Your task to perform on an android device: Open sound settings Image 0: 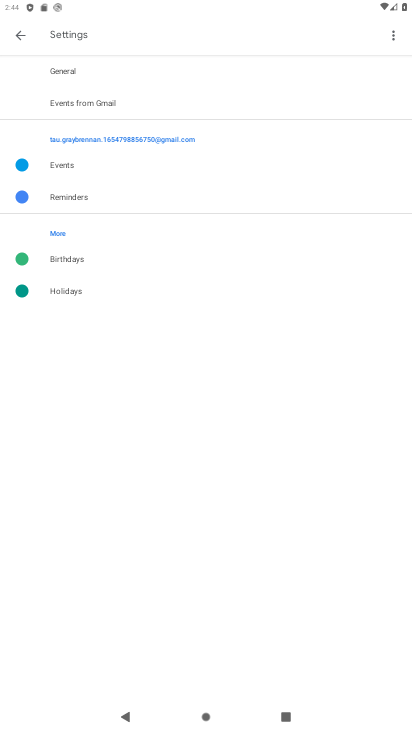
Step 0: press home button
Your task to perform on an android device: Open sound settings Image 1: 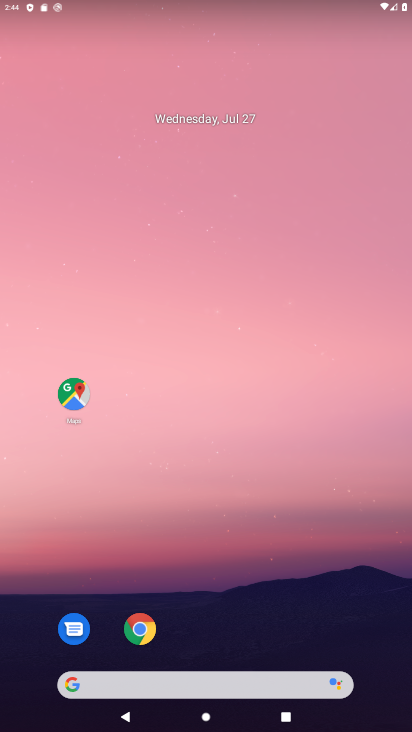
Step 1: drag from (236, 621) to (228, 207)
Your task to perform on an android device: Open sound settings Image 2: 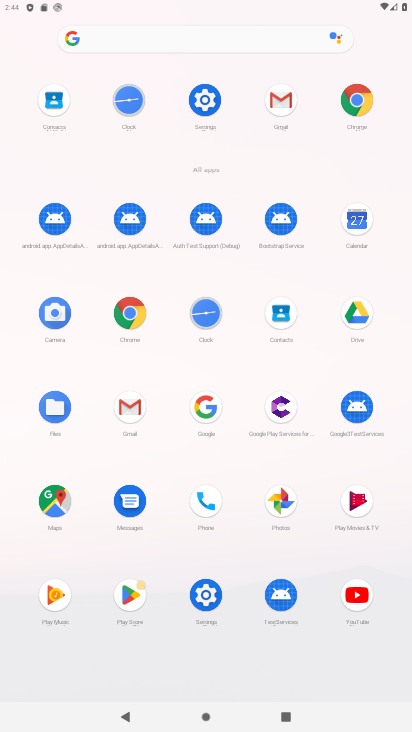
Step 2: click (211, 110)
Your task to perform on an android device: Open sound settings Image 3: 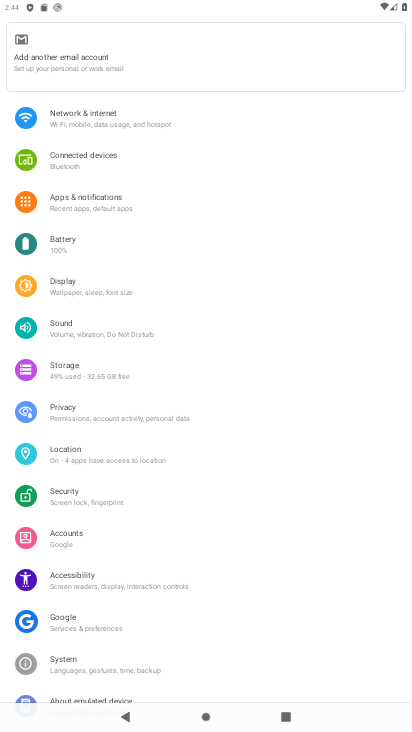
Step 3: click (69, 333)
Your task to perform on an android device: Open sound settings Image 4: 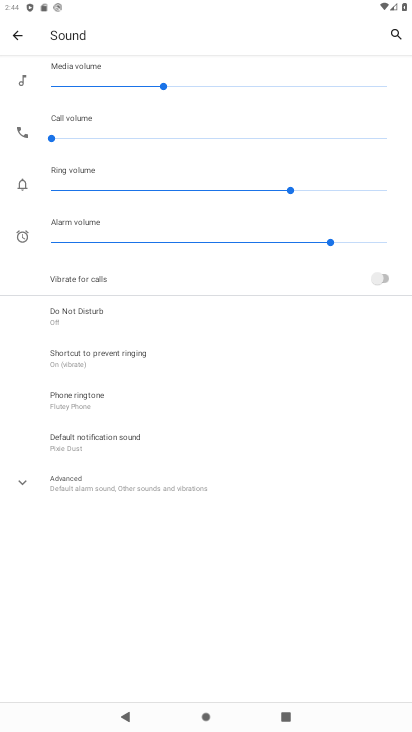
Step 4: task complete